Your task to perform on an android device: turn off improve location accuracy Image 0: 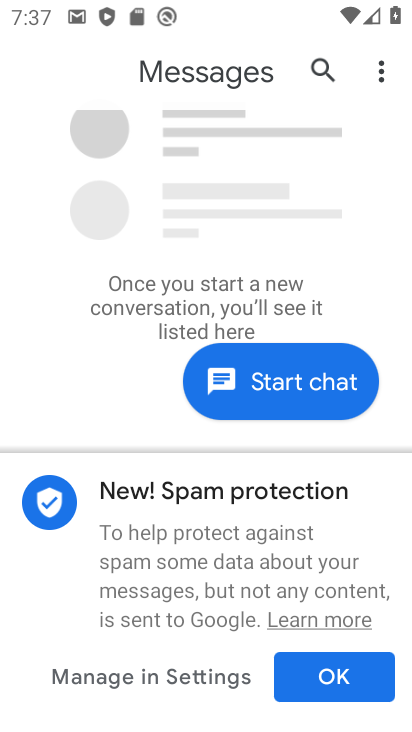
Step 0: press home button
Your task to perform on an android device: turn off improve location accuracy Image 1: 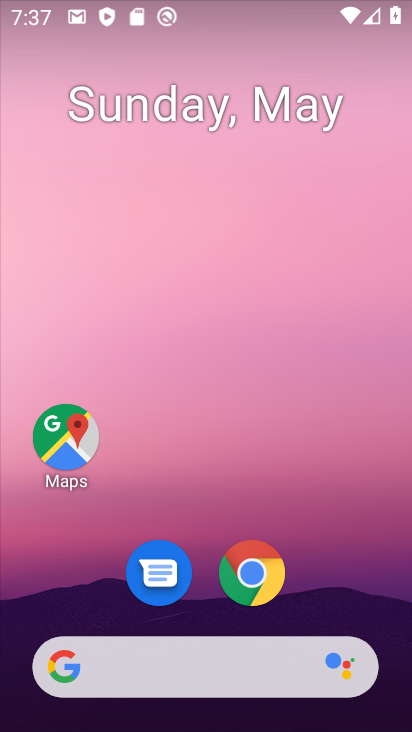
Step 1: drag from (210, 521) to (193, 0)
Your task to perform on an android device: turn off improve location accuracy Image 2: 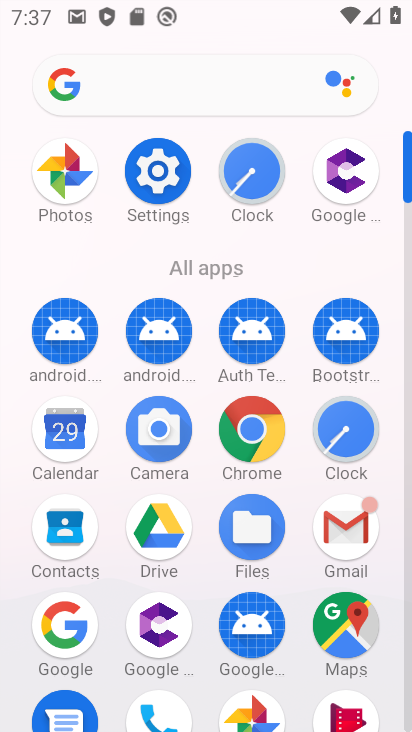
Step 2: click (162, 169)
Your task to perform on an android device: turn off improve location accuracy Image 3: 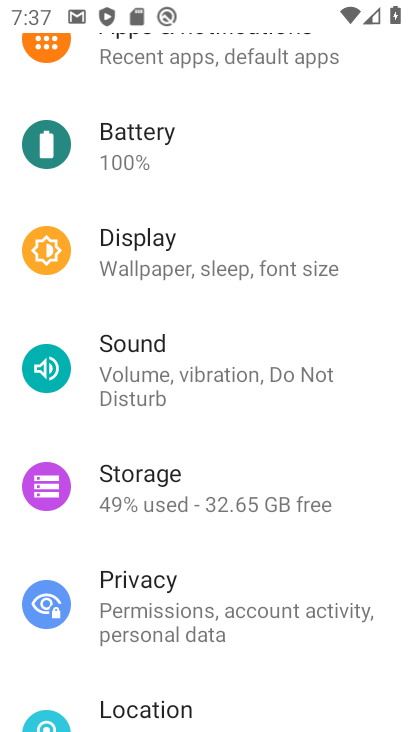
Step 3: drag from (247, 647) to (248, 362)
Your task to perform on an android device: turn off improve location accuracy Image 4: 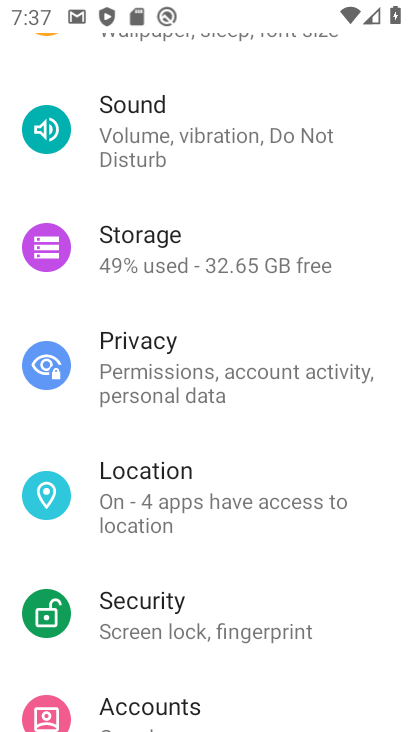
Step 4: click (200, 493)
Your task to perform on an android device: turn off improve location accuracy Image 5: 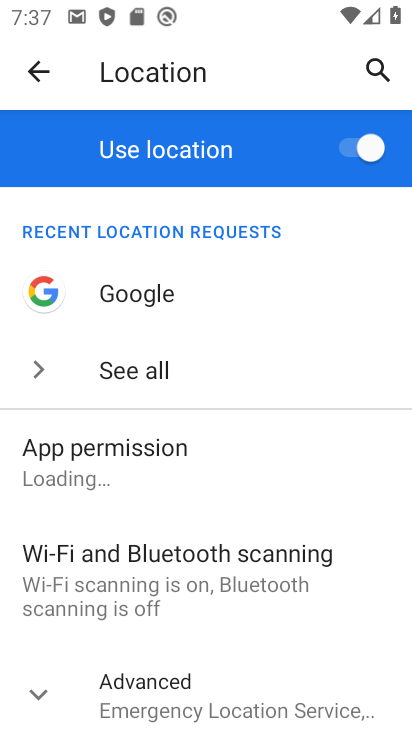
Step 5: drag from (241, 624) to (263, 289)
Your task to perform on an android device: turn off improve location accuracy Image 6: 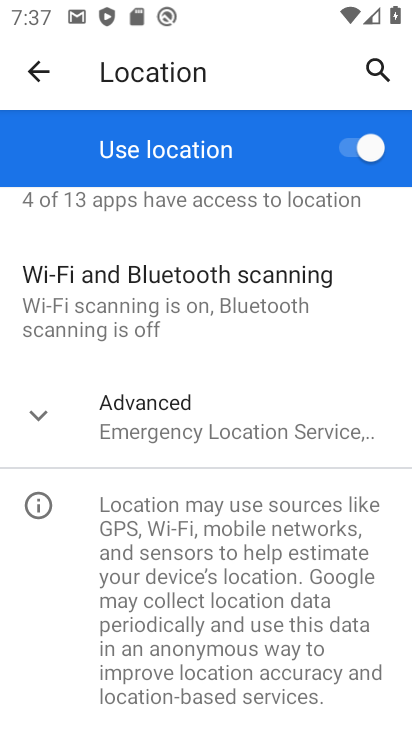
Step 6: click (42, 413)
Your task to perform on an android device: turn off improve location accuracy Image 7: 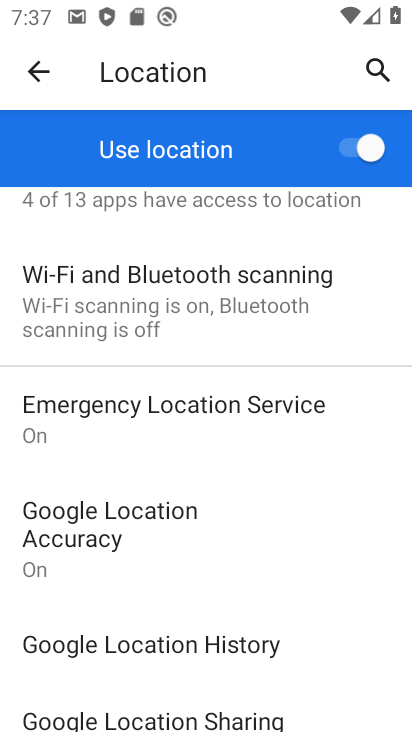
Step 7: click (129, 534)
Your task to perform on an android device: turn off improve location accuracy Image 8: 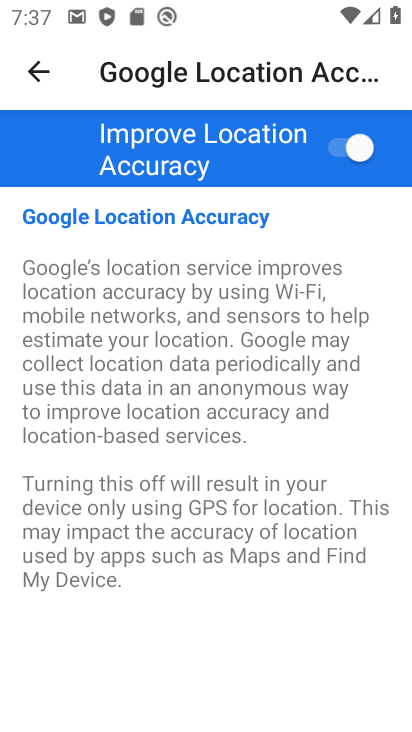
Step 8: click (353, 147)
Your task to perform on an android device: turn off improve location accuracy Image 9: 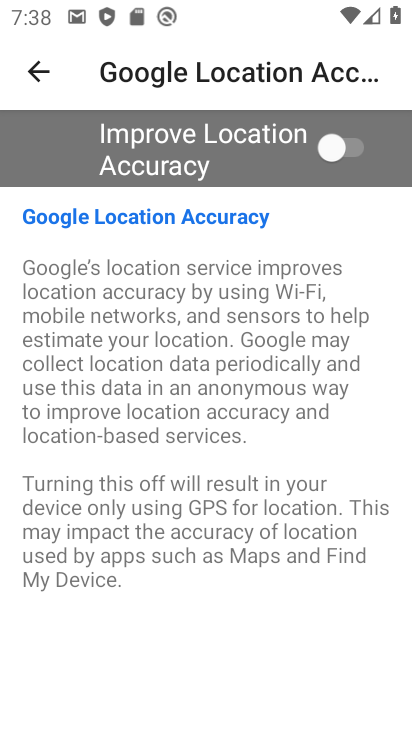
Step 9: task complete